Your task to perform on an android device: Go to sound settings Image 0: 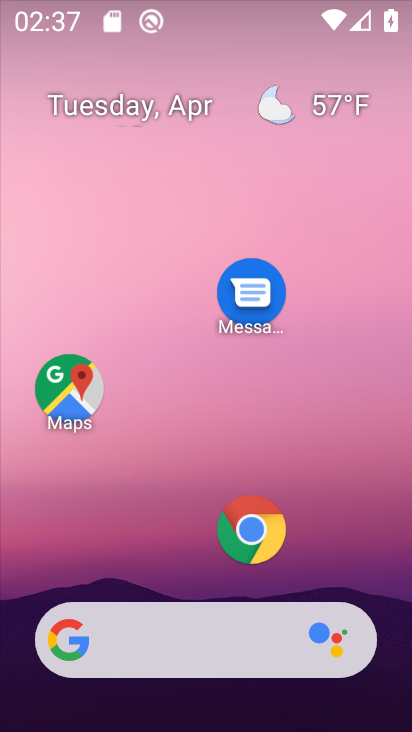
Step 0: drag from (183, 528) to (180, 222)
Your task to perform on an android device: Go to sound settings Image 1: 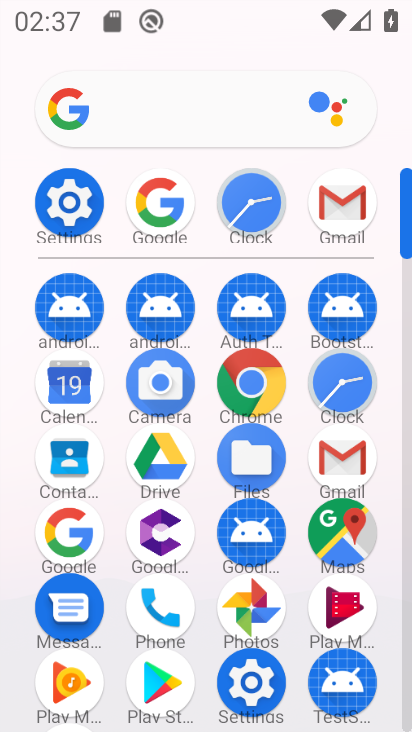
Step 1: click (248, 691)
Your task to perform on an android device: Go to sound settings Image 2: 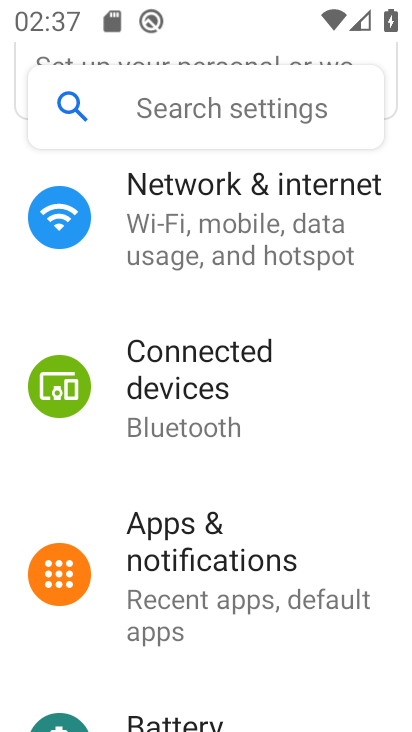
Step 2: drag from (209, 269) to (235, 129)
Your task to perform on an android device: Go to sound settings Image 3: 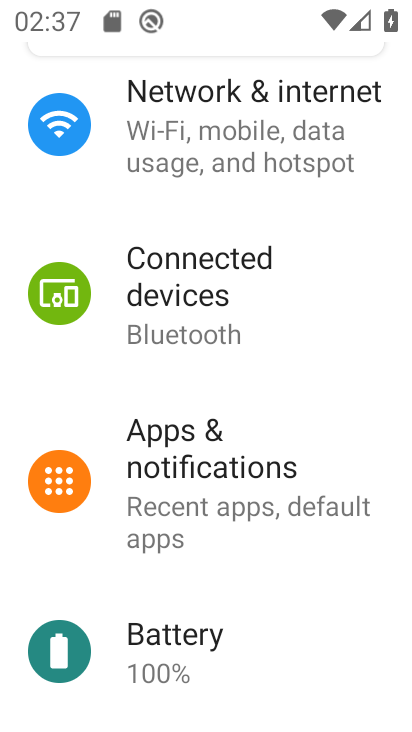
Step 3: drag from (274, 673) to (273, 359)
Your task to perform on an android device: Go to sound settings Image 4: 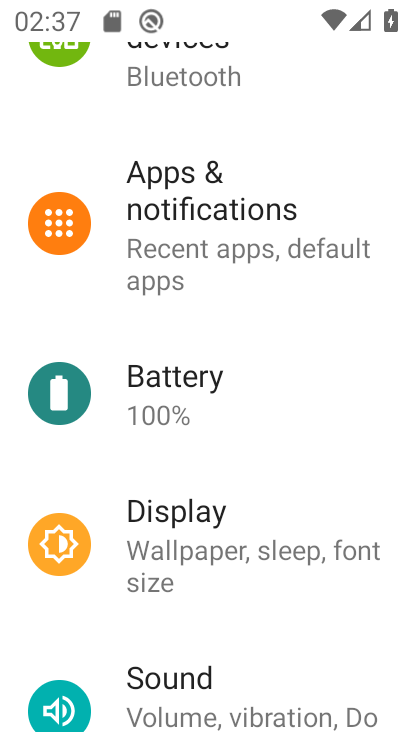
Step 4: click (192, 690)
Your task to perform on an android device: Go to sound settings Image 5: 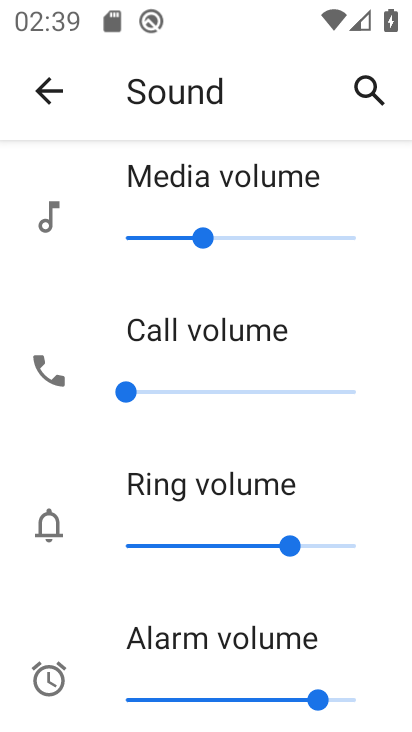
Step 5: task complete